Your task to perform on an android device: Play the last video I watched on Youtube Image 0: 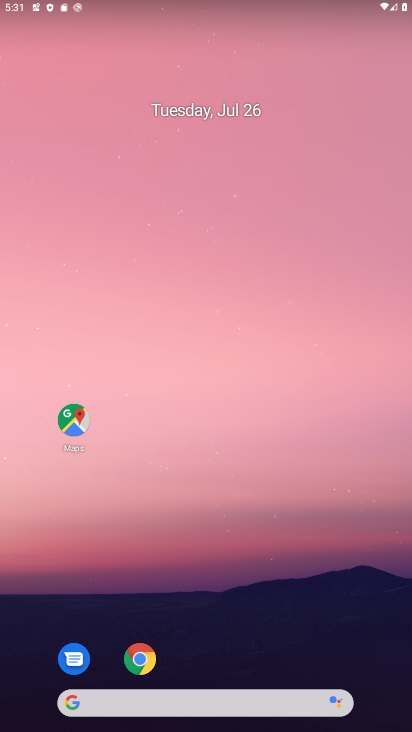
Step 0: drag from (258, 537) to (248, 85)
Your task to perform on an android device: Play the last video I watched on Youtube Image 1: 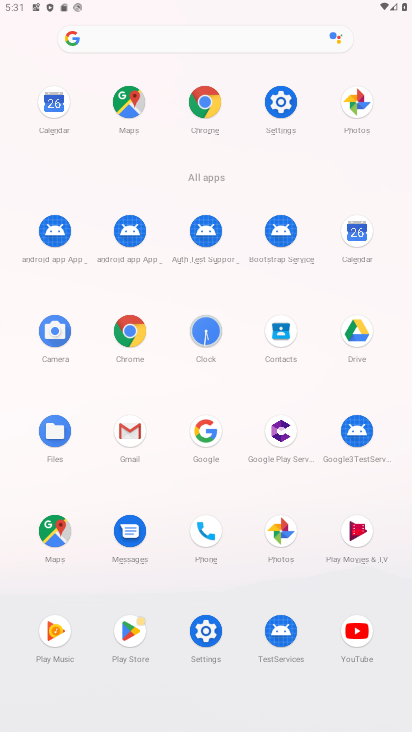
Step 1: click (361, 642)
Your task to perform on an android device: Play the last video I watched on Youtube Image 2: 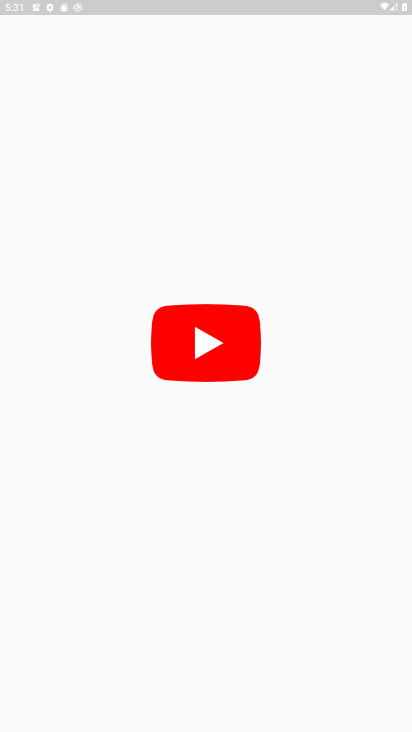
Step 2: task complete